Your task to perform on an android device: change the clock display to analog Image 0: 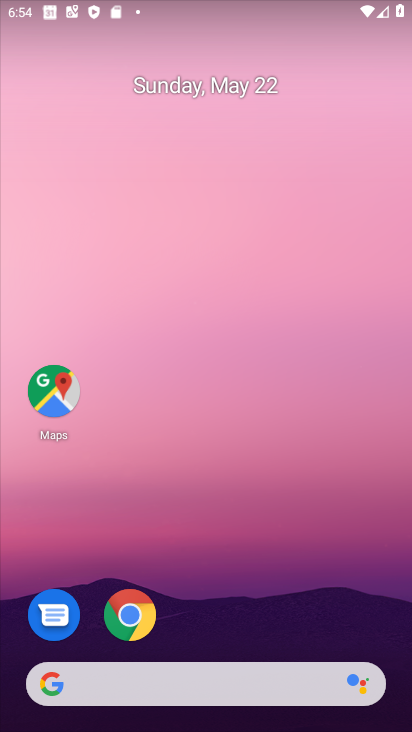
Step 0: drag from (243, 564) to (233, 9)
Your task to perform on an android device: change the clock display to analog Image 1: 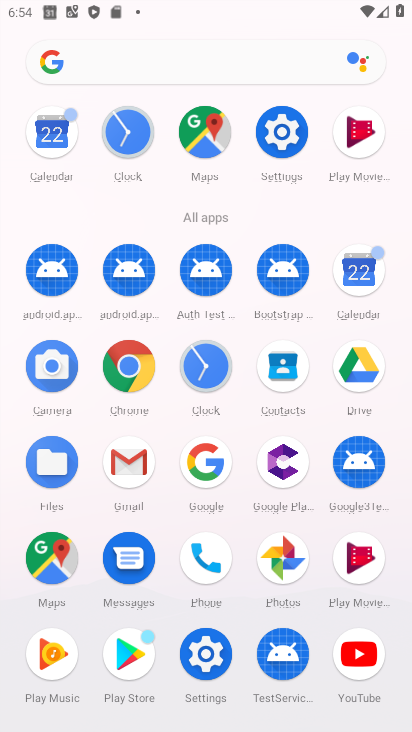
Step 1: click (134, 123)
Your task to perform on an android device: change the clock display to analog Image 2: 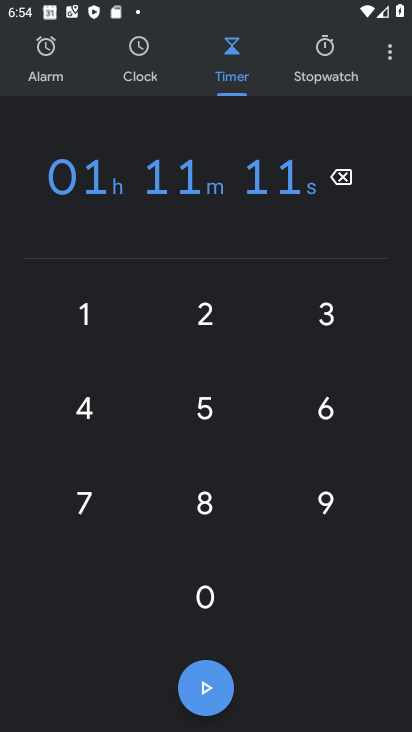
Step 2: click (395, 52)
Your task to perform on an android device: change the clock display to analog Image 3: 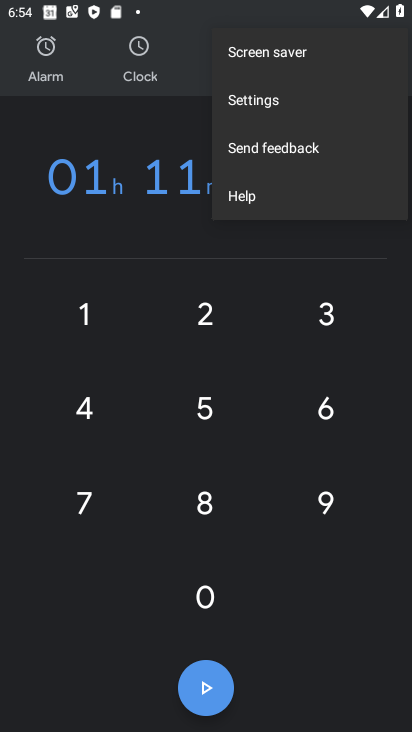
Step 3: click (266, 100)
Your task to perform on an android device: change the clock display to analog Image 4: 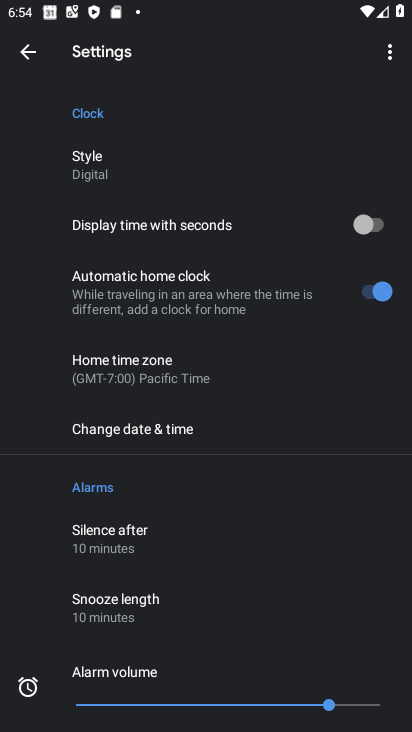
Step 4: click (96, 155)
Your task to perform on an android device: change the clock display to analog Image 5: 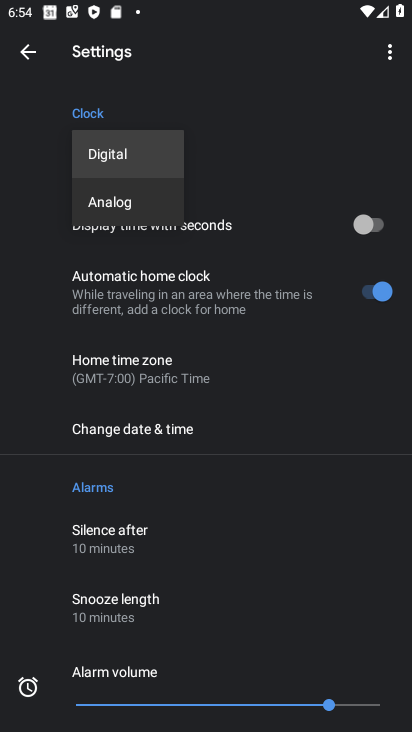
Step 5: click (114, 203)
Your task to perform on an android device: change the clock display to analog Image 6: 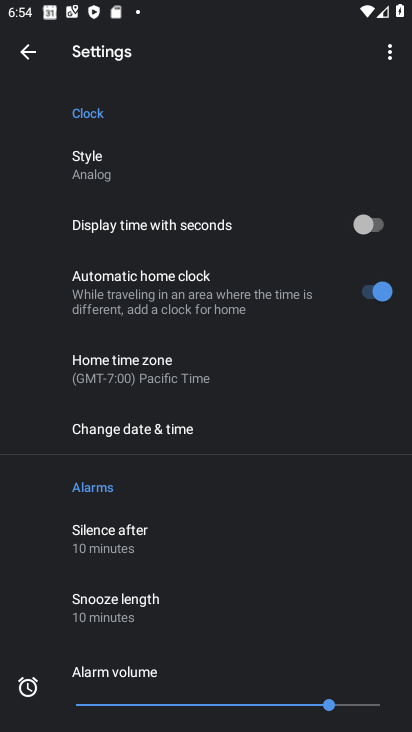
Step 6: task complete